Your task to perform on an android device: turn on bluetooth scan Image 0: 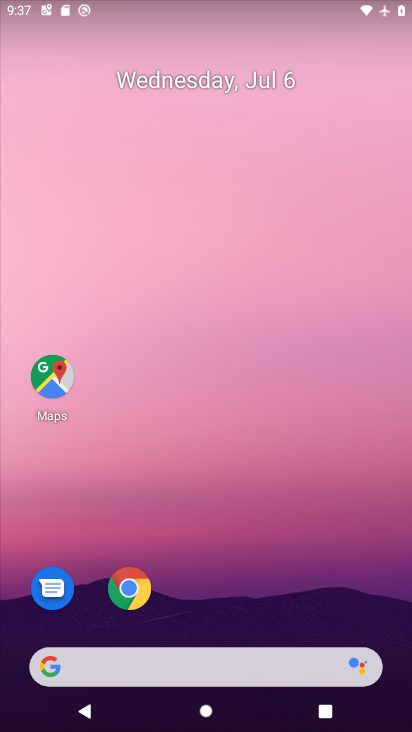
Step 0: drag from (198, 658) to (323, 144)
Your task to perform on an android device: turn on bluetooth scan Image 1: 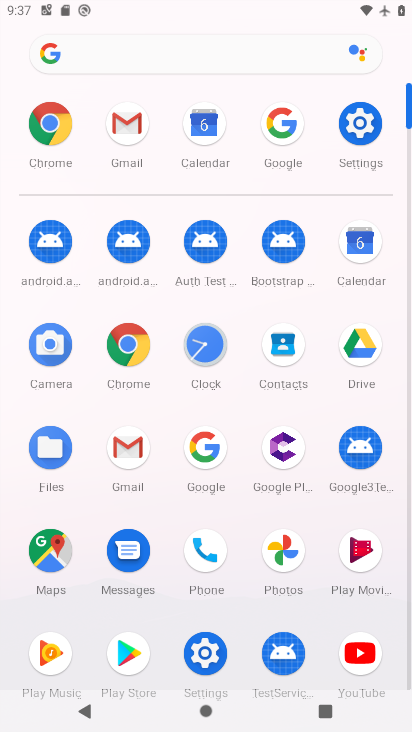
Step 1: click (362, 132)
Your task to perform on an android device: turn on bluetooth scan Image 2: 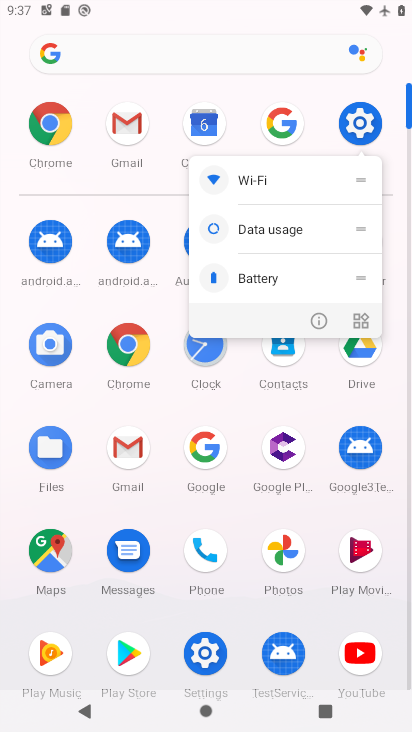
Step 2: click (358, 121)
Your task to perform on an android device: turn on bluetooth scan Image 3: 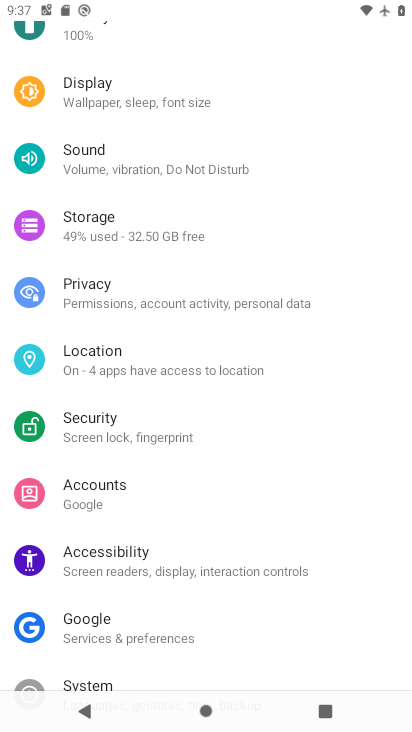
Step 3: click (132, 352)
Your task to perform on an android device: turn on bluetooth scan Image 4: 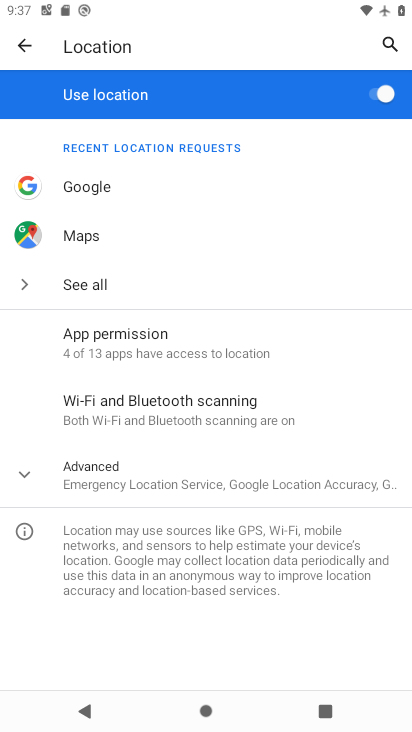
Step 4: click (160, 422)
Your task to perform on an android device: turn on bluetooth scan Image 5: 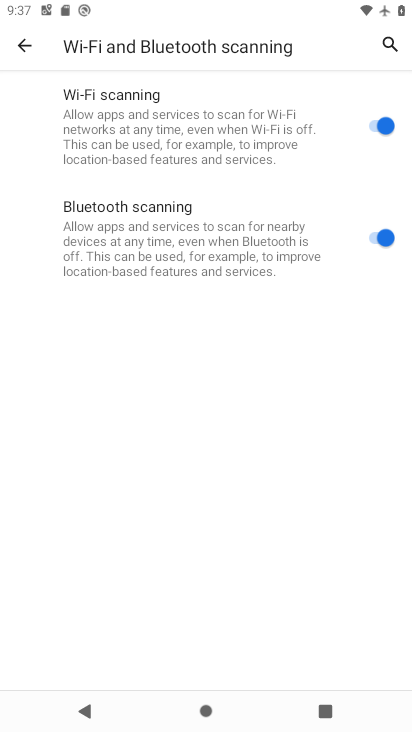
Step 5: task complete